Your task to perform on an android device: Toggle the flashlight Image 0: 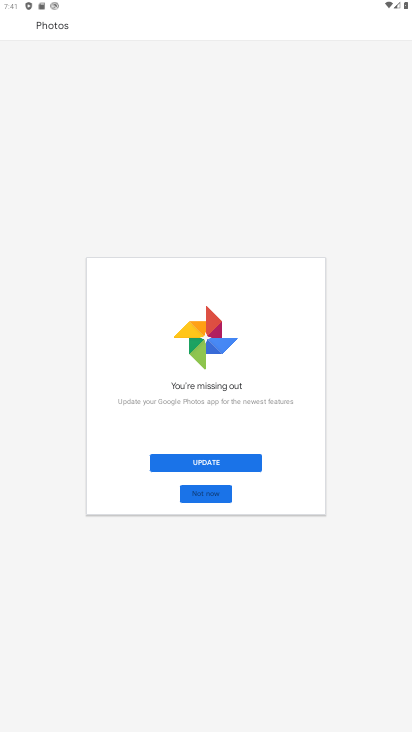
Step 0: press home button
Your task to perform on an android device: Toggle the flashlight Image 1: 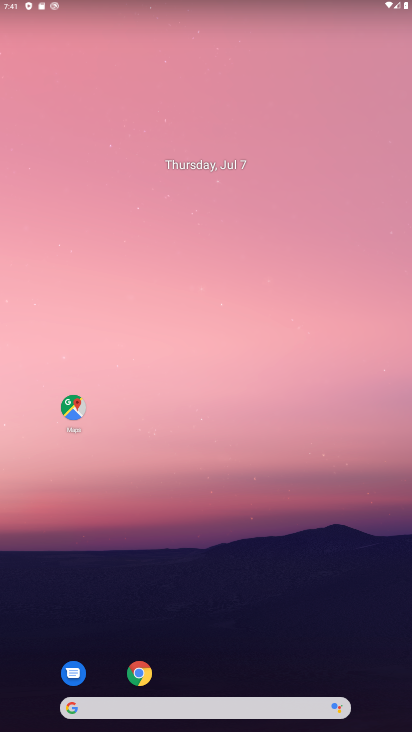
Step 1: drag from (257, 629) to (257, 219)
Your task to perform on an android device: Toggle the flashlight Image 2: 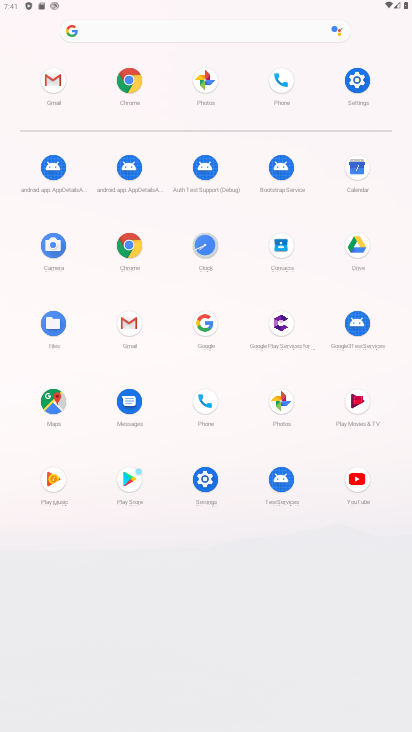
Step 2: click (205, 479)
Your task to perform on an android device: Toggle the flashlight Image 3: 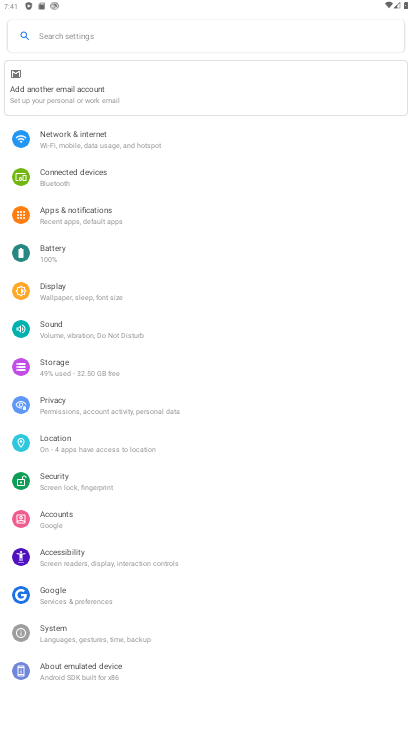
Step 3: click (58, 252)
Your task to perform on an android device: Toggle the flashlight Image 4: 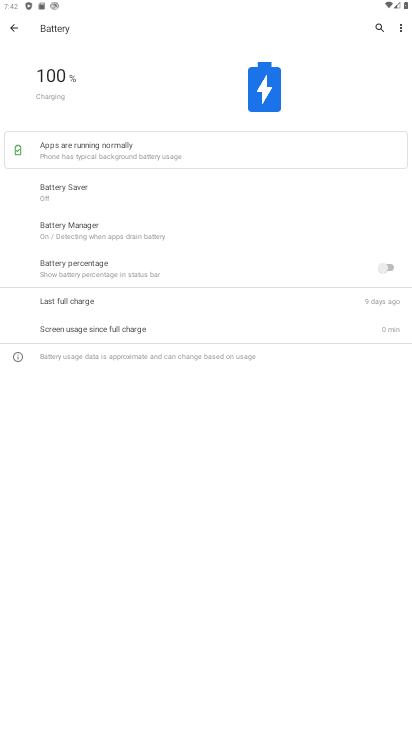
Step 4: press back button
Your task to perform on an android device: Toggle the flashlight Image 5: 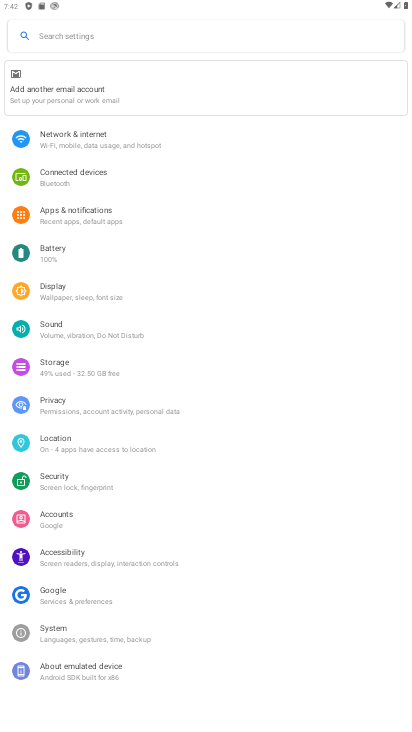
Step 5: click (75, 294)
Your task to perform on an android device: Toggle the flashlight Image 6: 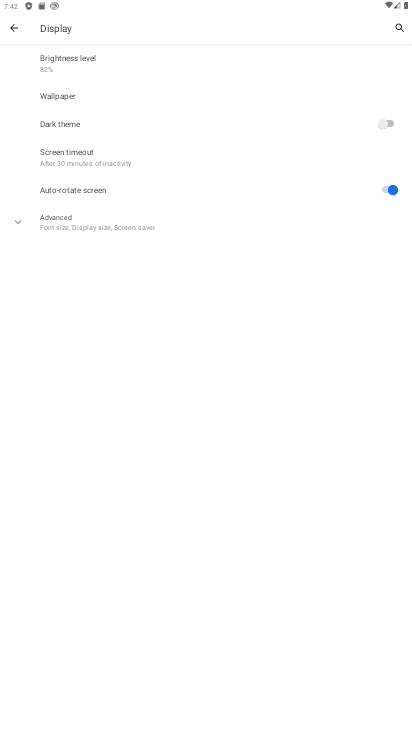
Step 6: click (62, 66)
Your task to perform on an android device: Toggle the flashlight Image 7: 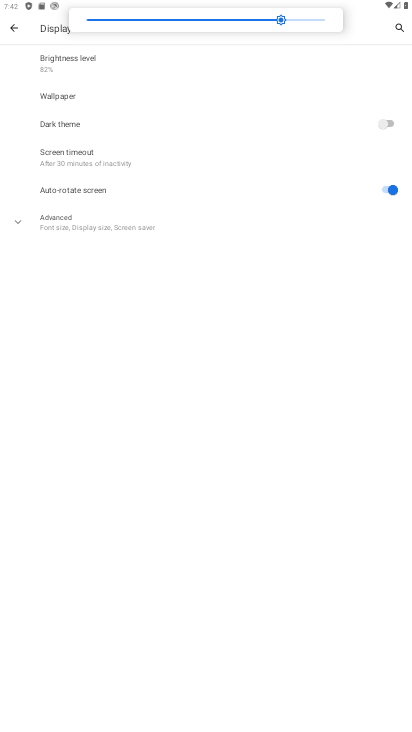
Step 7: task complete